Your task to perform on an android device: What's the weather going to be tomorrow? Image 0: 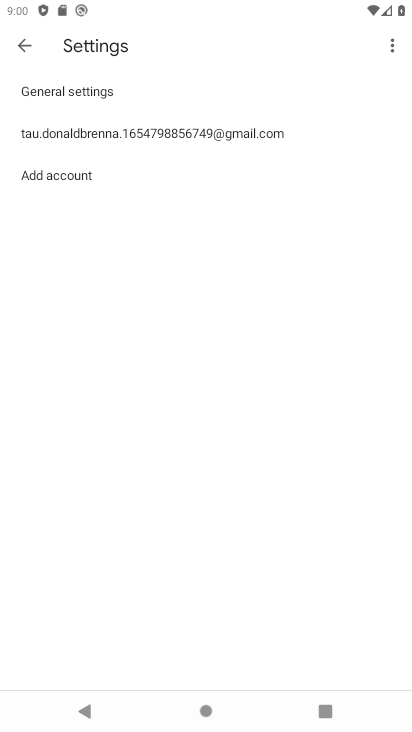
Step 0: press home button
Your task to perform on an android device: What's the weather going to be tomorrow? Image 1: 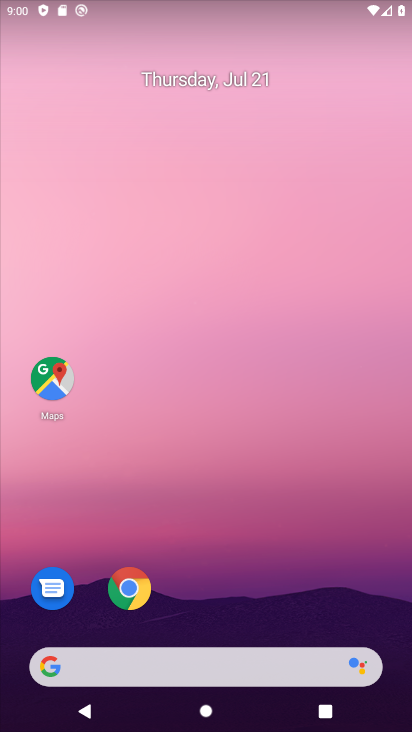
Step 1: drag from (393, 674) to (198, 178)
Your task to perform on an android device: What's the weather going to be tomorrow? Image 2: 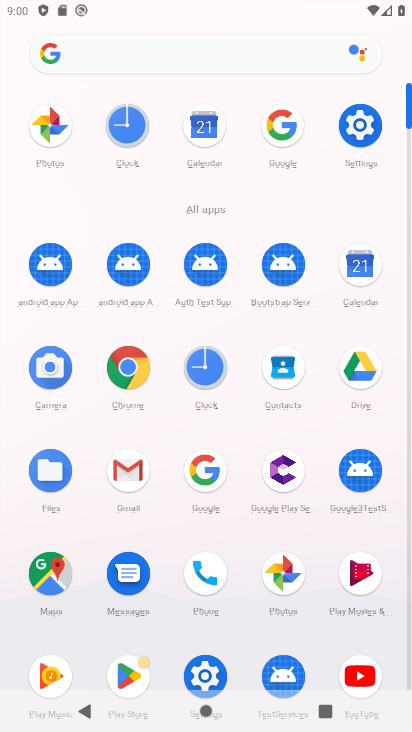
Step 2: click (197, 461)
Your task to perform on an android device: What's the weather going to be tomorrow? Image 3: 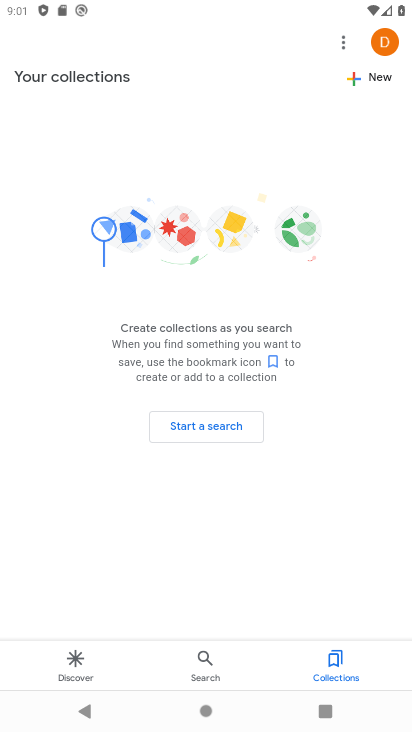
Step 3: task complete